Your task to perform on an android device: change your default location settings in chrome Image 0: 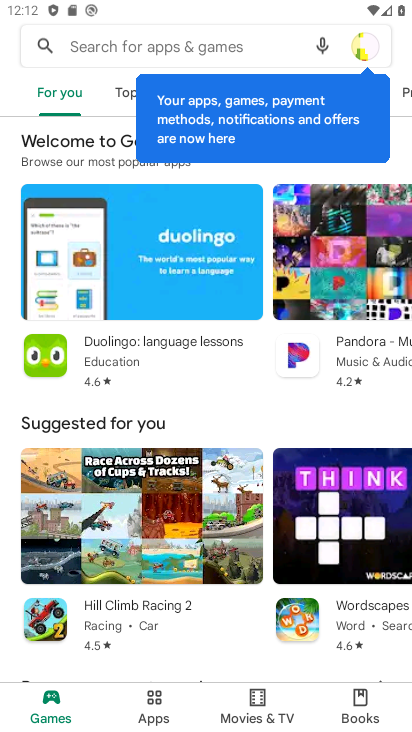
Step 0: press home button
Your task to perform on an android device: change your default location settings in chrome Image 1: 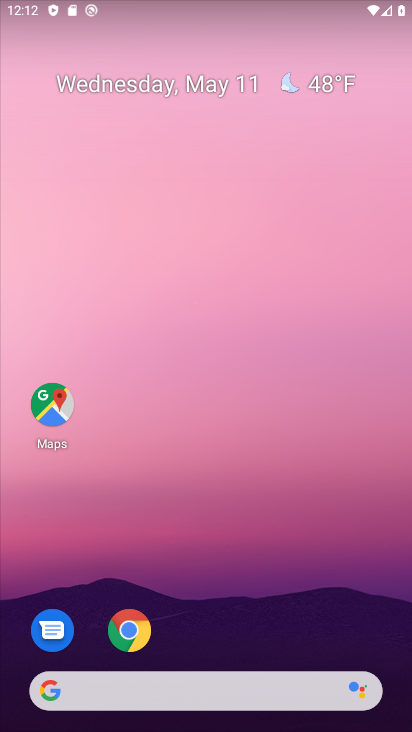
Step 1: drag from (204, 662) to (152, 20)
Your task to perform on an android device: change your default location settings in chrome Image 2: 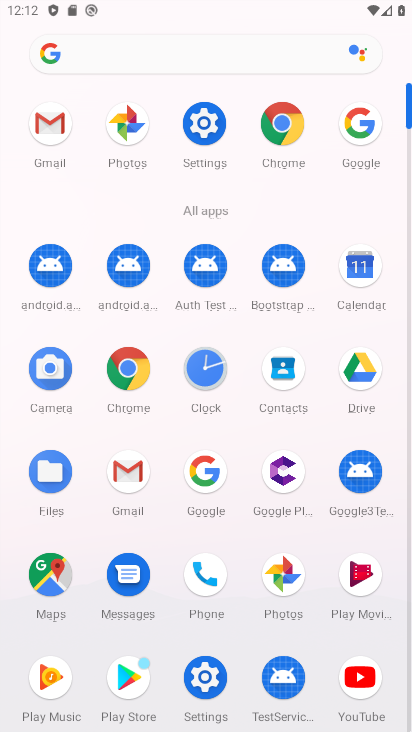
Step 2: click (133, 363)
Your task to perform on an android device: change your default location settings in chrome Image 3: 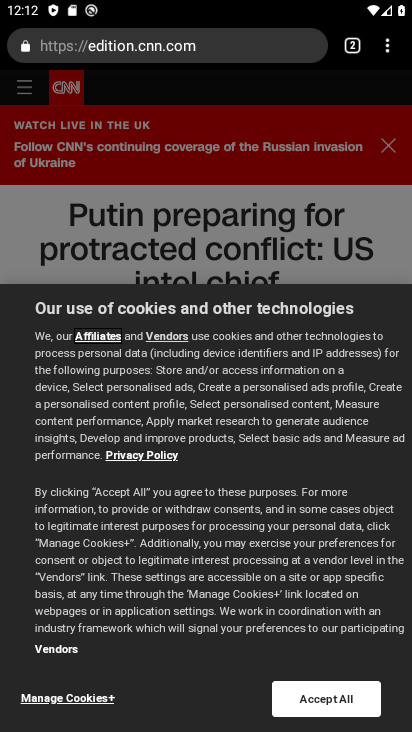
Step 3: drag from (382, 51) to (239, 512)
Your task to perform on an android device: change your default location settings in chrome Image 4: 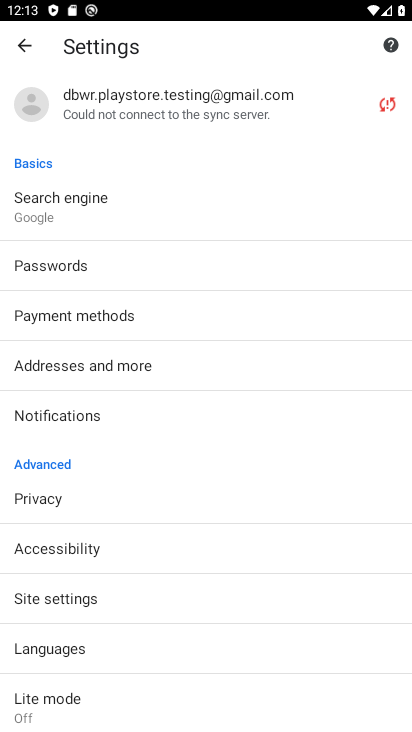
Step 4: click (59, 215)
Your task to perform on an android device: change your default location settings in chrome Image 5: 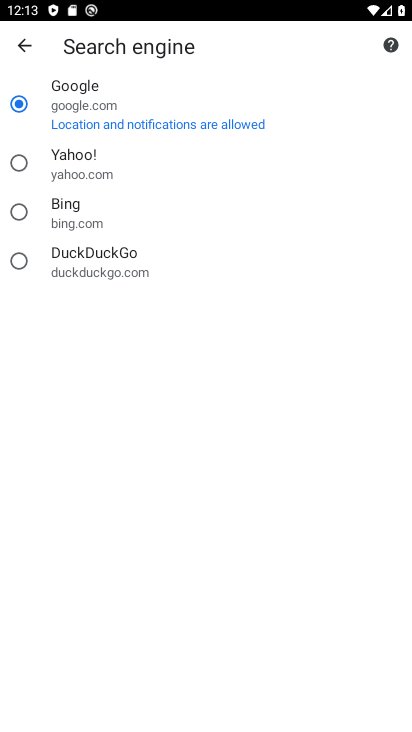
Step 5: click (19, 110)
Your task to perform on an android device: change your default location settings in chrome Image 6: 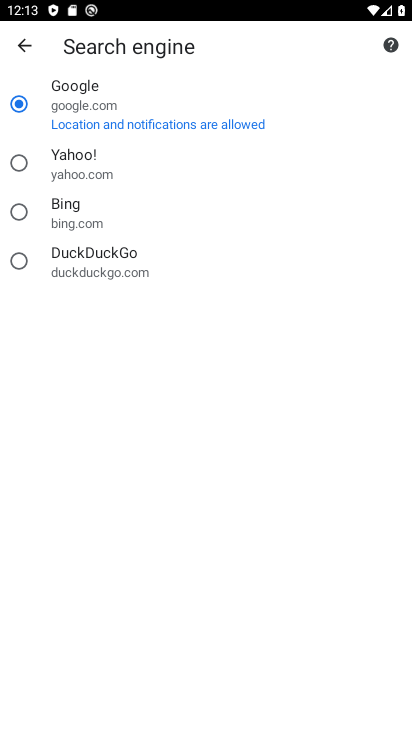
Step 6: task complete